Your task to perform on an android device: star an email in the gmail app Image 0: 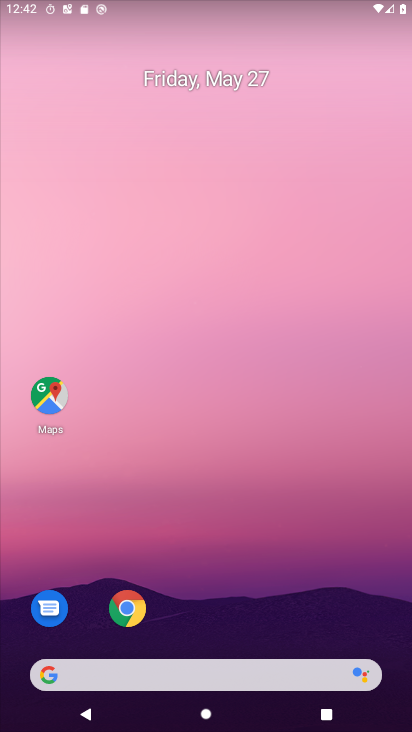
Step 0: drag from (403, 690) to (343, 326)
Your task to perform on an android device: star an email in the gmail app Image 1: 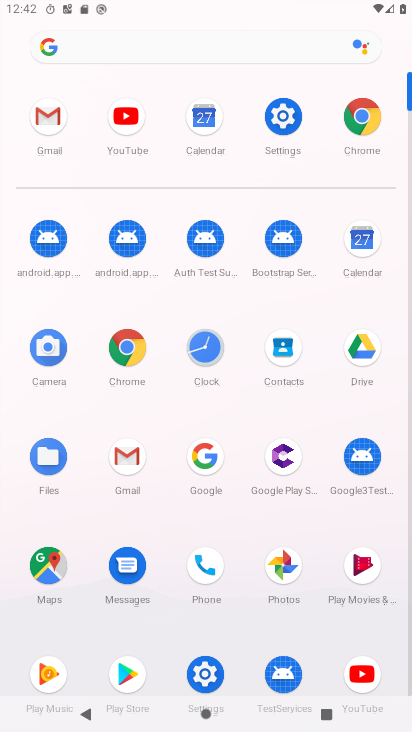
Step 1: click (134, 465)
Your task to perform on an android device: star an email in the gmail app Image 2: 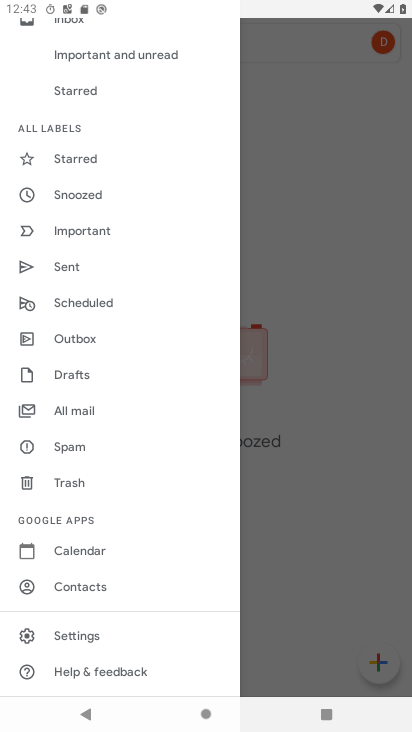
Step 2: drag from (142, 197) to (163, 305)
Your task to perform on an android device: star an email in the gmail app Image 3: 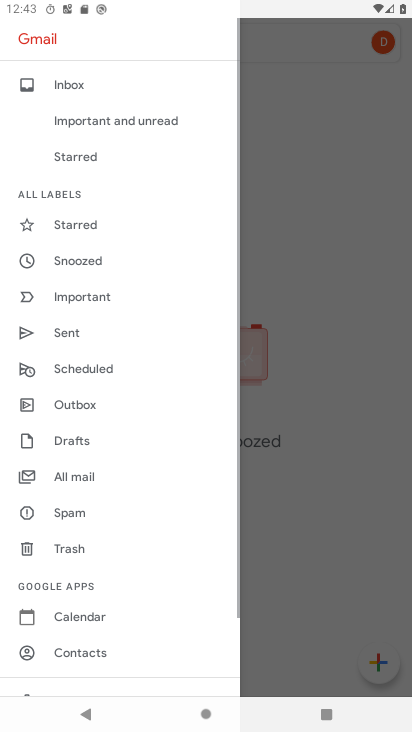
Step 3: click (73, 84)
Your task to perform on an android device: star an email in the gmail app Image 4: 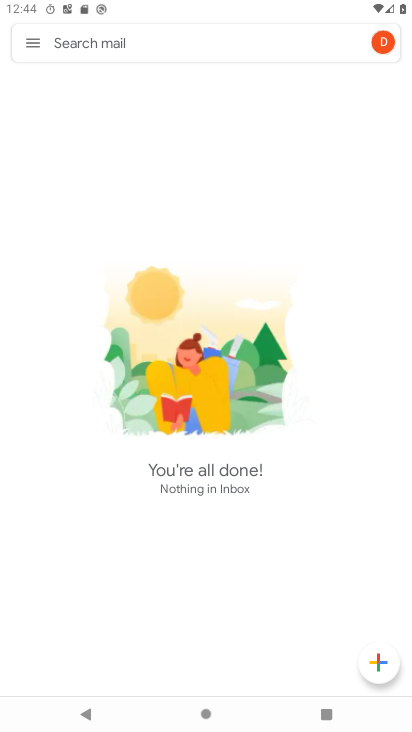
Step 4: task complete